Your task to perform on an android device: turn on priority inbox in the gmail app Image 0: 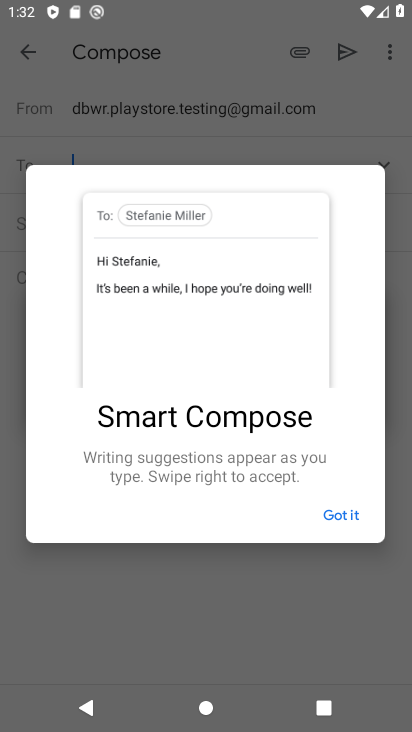
Step 0: press home button
Your task to perform on an android device: turn on priority inbox in the gmail app Image 1: 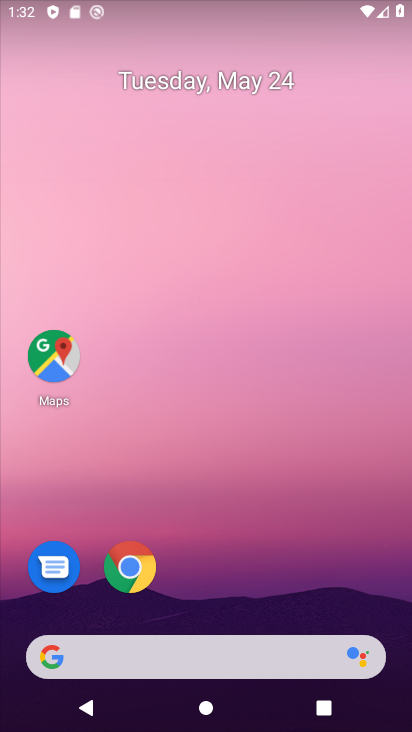
Step 1: drag from (189, 591) to (303, 104)
Your task to perform on an android device: turn on priority inbox in the gmail app Image 2: 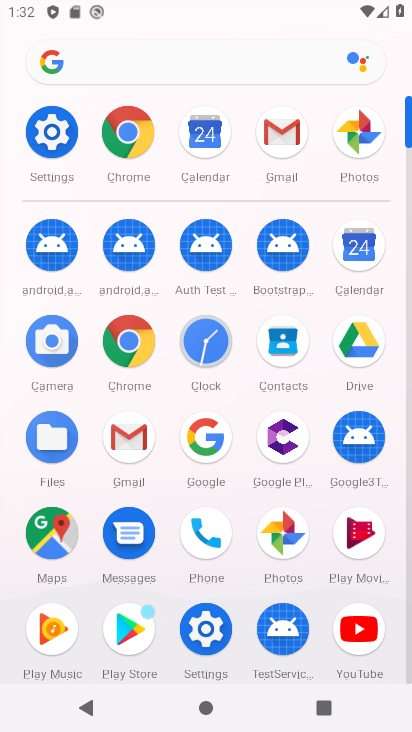
Step 2: click (137, 432)
Your task to perform on an android device: turn on priority inbox in the gmail app Image 3: 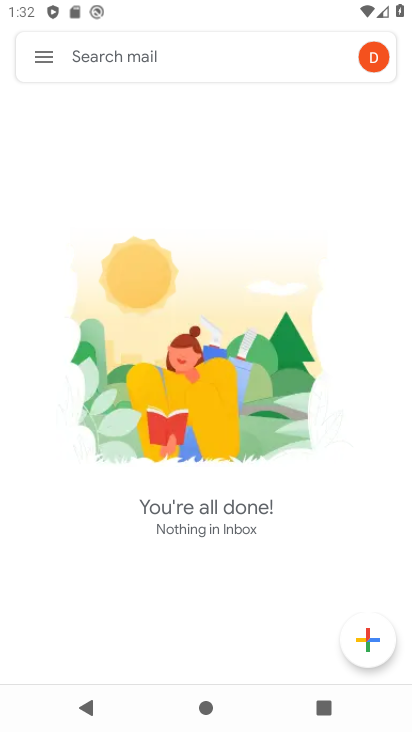
Step 3: click (51, 60)
Your task to perform on an android device: turn on priority inbox in the gmail app Image 4: 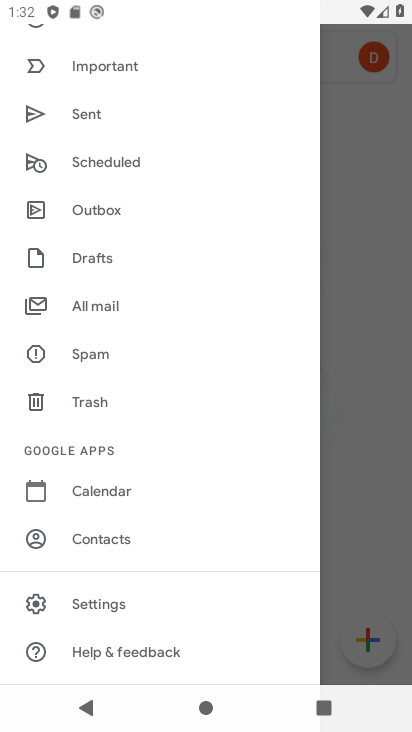
Step 4: click (104, 620)
Your task to perform on an android device: turn on priority inbox in the gmail app Image 5: 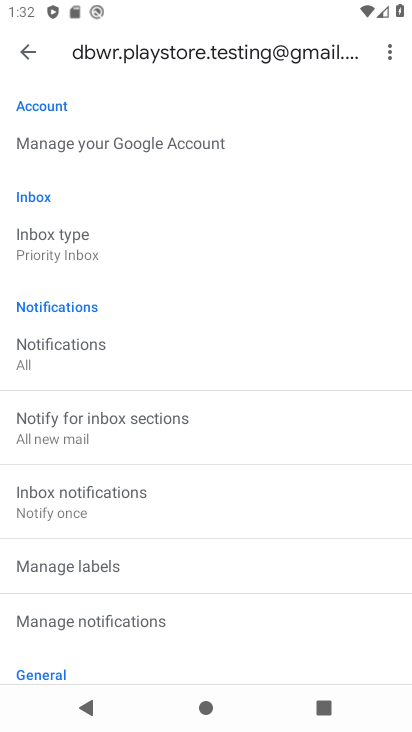
Step 5: task complete